Your task to perform on an android device: change the clock display to digital Image 0: 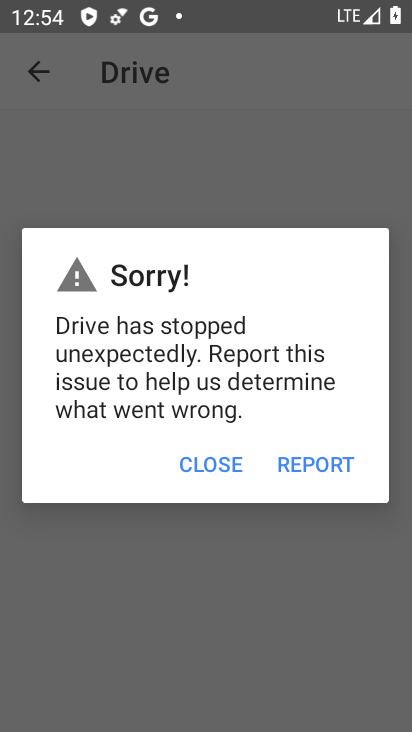
Step 0: press back button
Your task to perform on an android device: change the clock display to digital Image 1: 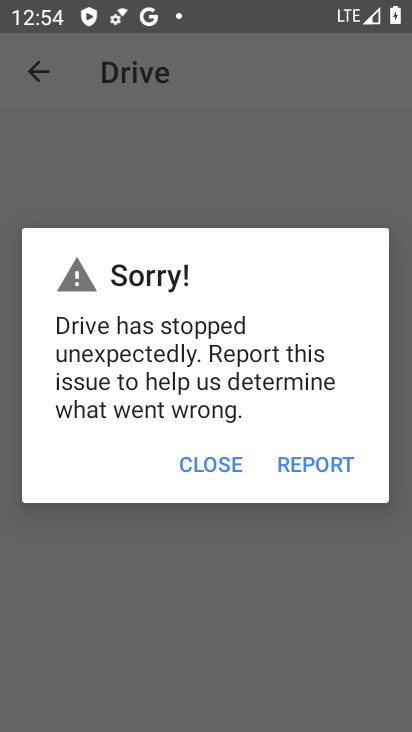
Step 1: press home button
Your task to perform on an android device: change the clock display to digital Image 2: 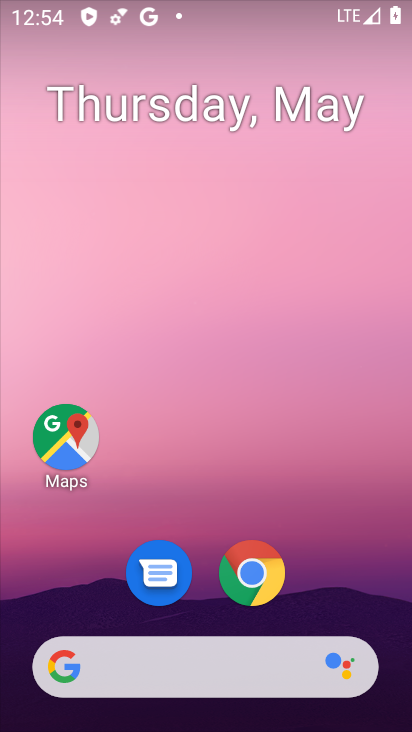
Step 2: drag from (356, 557) to (310, 87)
Your task to perform on an android device: change the clock display to digital Image 3: 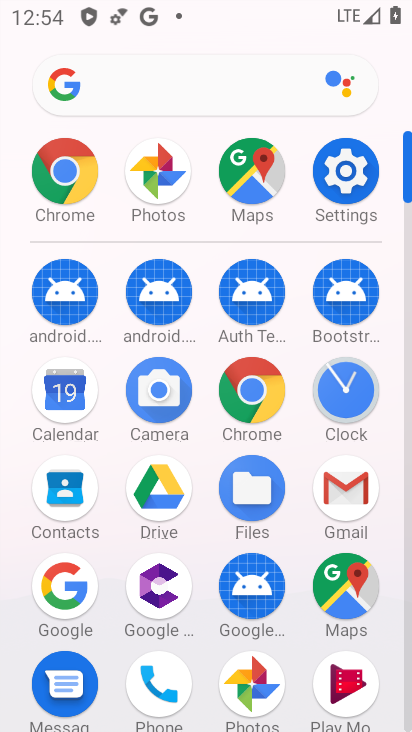
Step 3: click (338, 394)
Your task to perform on an android device: change the clock display to digital Image 4: 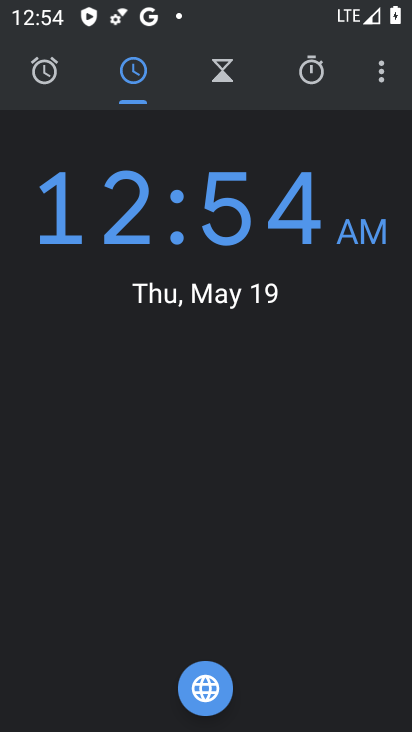
Step 4: task complete